Your task to perform on an android device: Show me the alarms in the clock app Image 0: 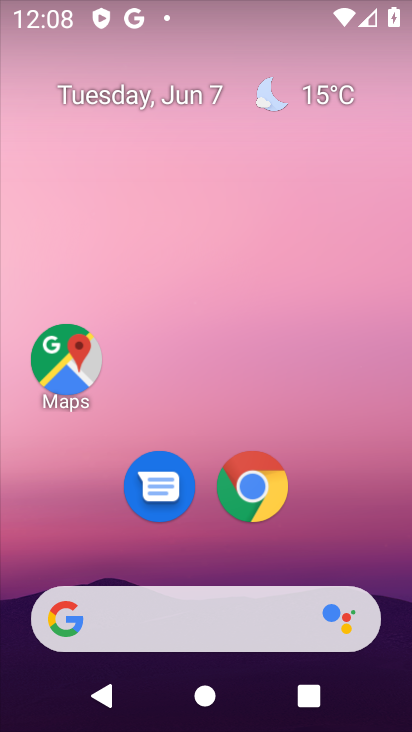
Step 0: drag from (296, 305) to (151, 18)
Your task to perform on an android device: Show me the alarms in the clock app Image 1: 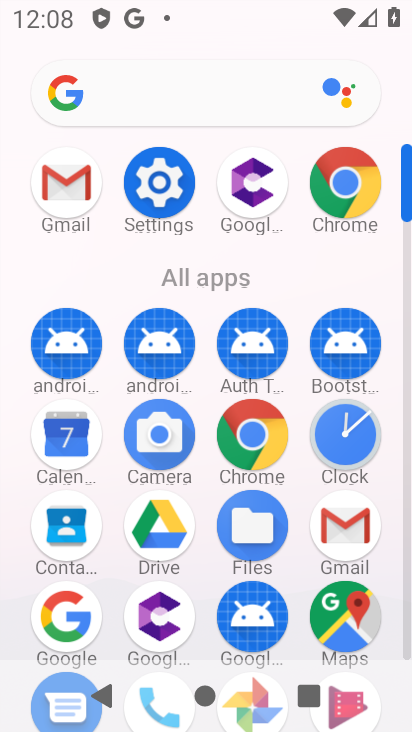
Step 1: click (343, 439)
Your task to perform on an android device: Show me the alarms in the clock app Image 2: 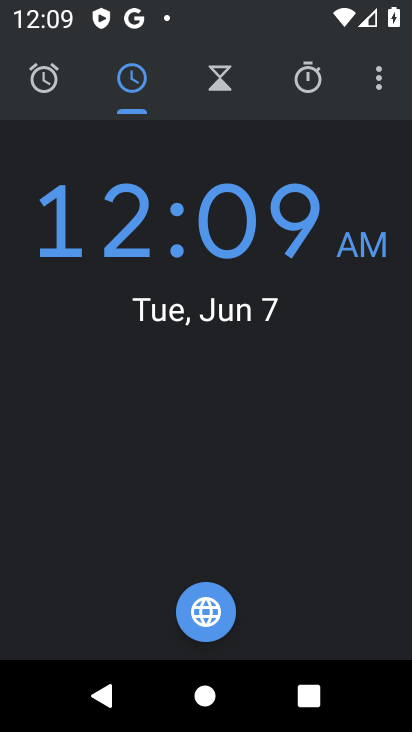
Step 2: click (46, 76)
Your task to perform on an android device: Show me the alarms in the clock app Image 3: 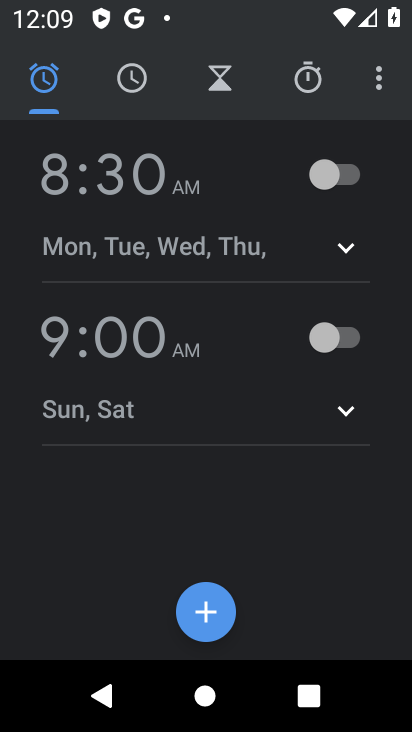
Step 3: task complete